Your task to perform on an android device: Go to battery settings Image 0: 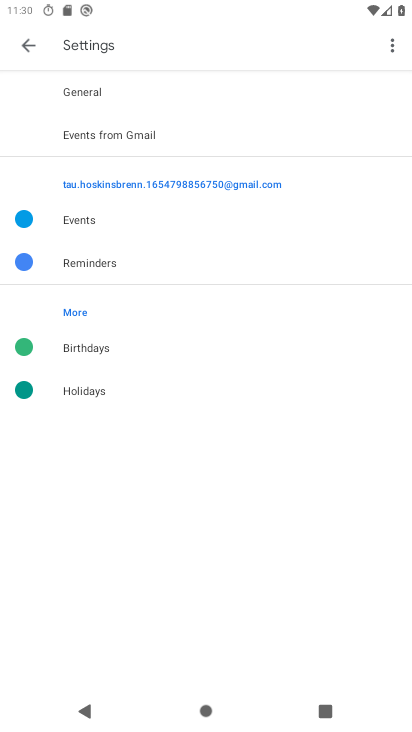
Step 0: press home button
Your task to perform on an android device: Go to battery settings Image 1: 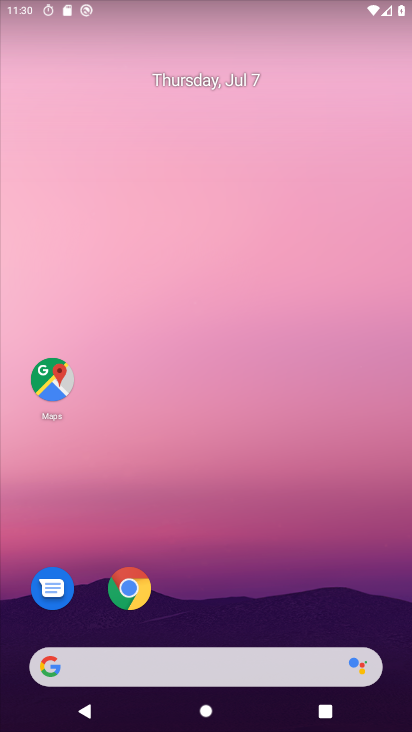
Step 1: drag from (165, 668) to (307, 218)
Your task to perform on an android device: Go to battery settings Image 2: 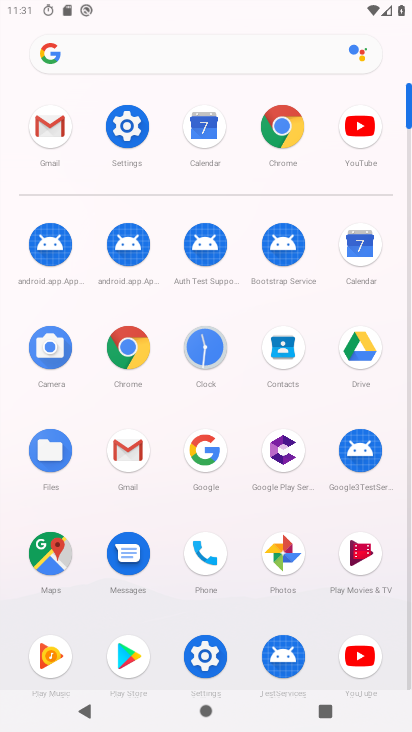
Step 2: click (135, 119)
Your task to perform on an android device: Go to battery settings Image 3: 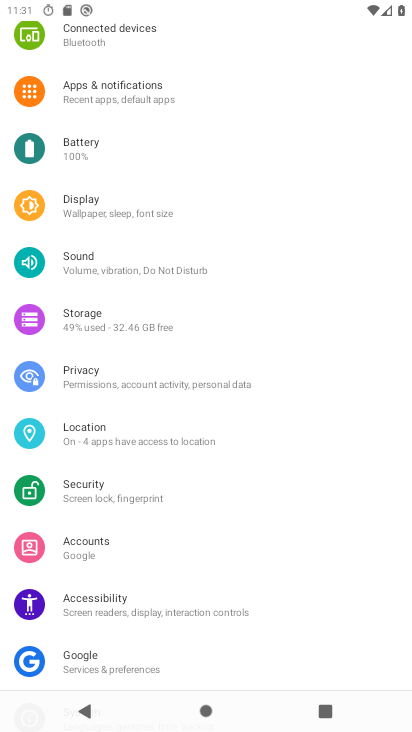
Step 3: click (92, 151)
Your task to perform on an android device: Go to battery settings Image 4: 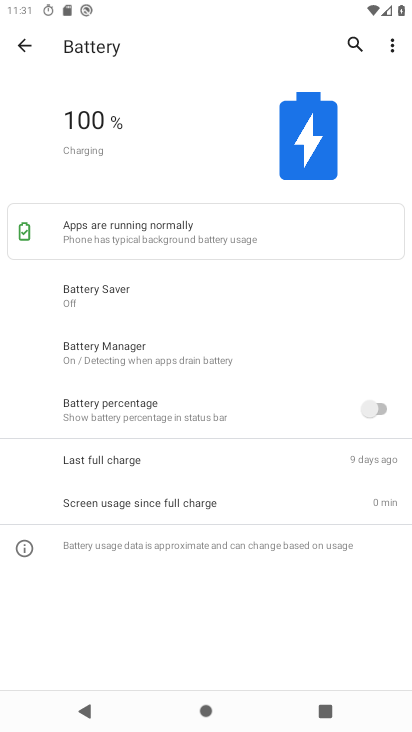
Step 4: task complete